Your task to perform on an android device: snooze an email in the gmail app Image 0: 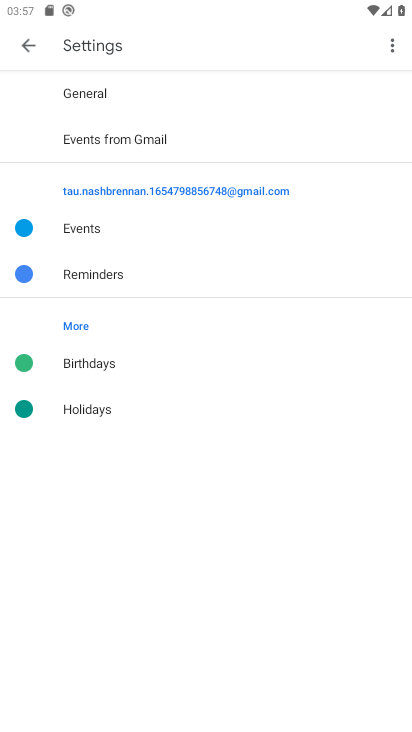
Step 0: press home button
Your task to perform on an android device: snooze an email in the gmail app Image 1: 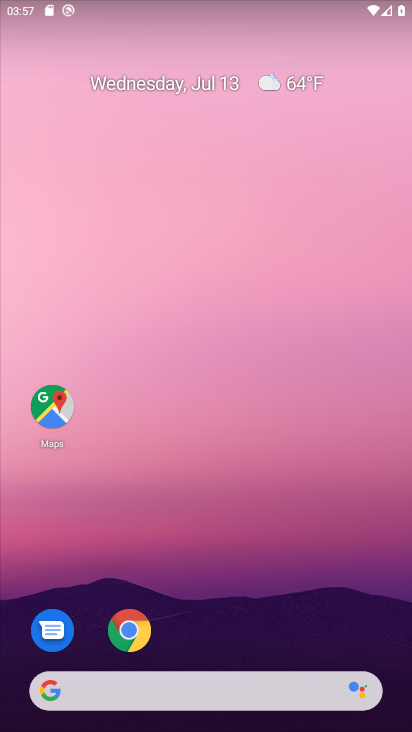
Step 1: drag from (206, 639) to (242, 156)
Your task to perform on an android device: snooze an email in the gmail app Image 2: 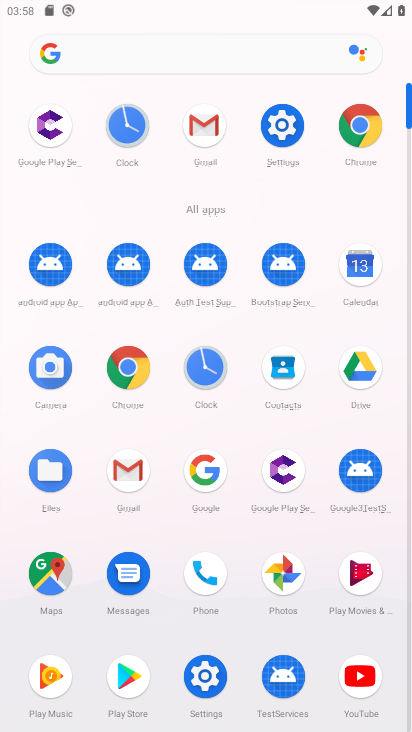
Step 2: click (126, 474)
Your task to perform on an android device: snooze an email in the gmail app Image 3: 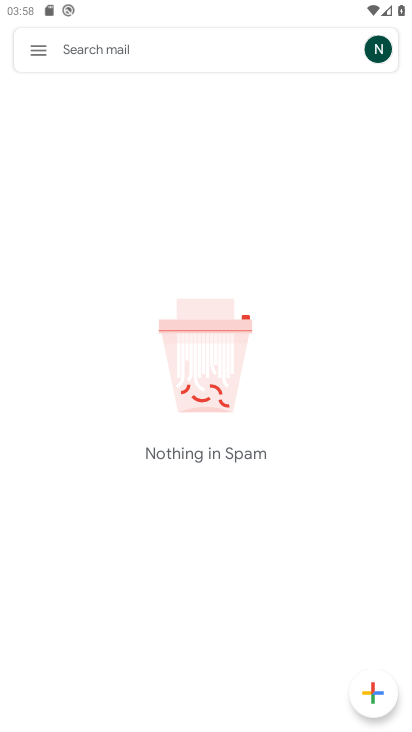
Step 3: click (45, 44)
Your task to perform on an android device: snooze an email in the gmail app Image 4: 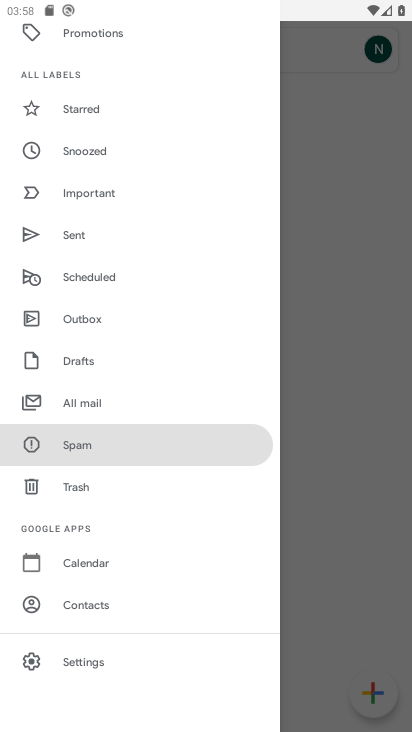
Step 4: click (93, 147)
Your task to perform on an android device: snooze an email in the gmail app Image 5: 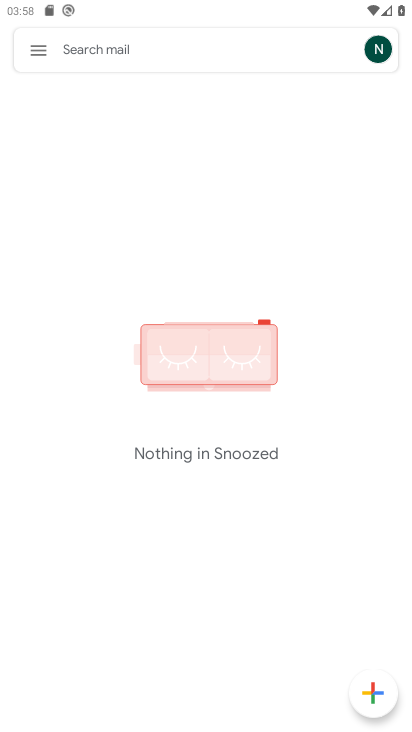
Step 5: task complete